Your task to perform on an android device: Show me productivity apps on the Play Store Image 0: 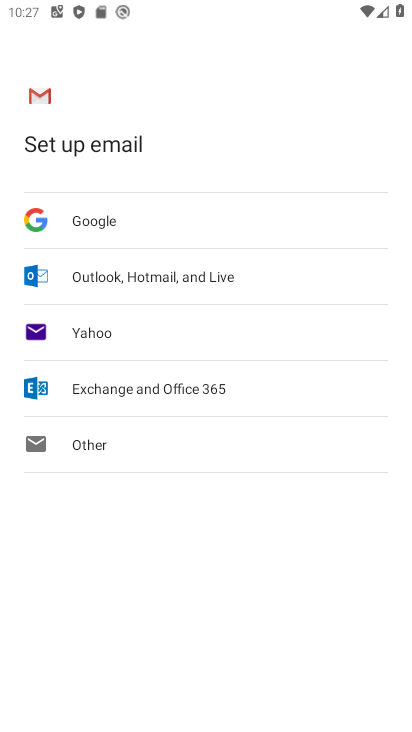
Step 0: press home button
Your task to perform on an android device: Show me productivity apps on the Play Store Image 1: 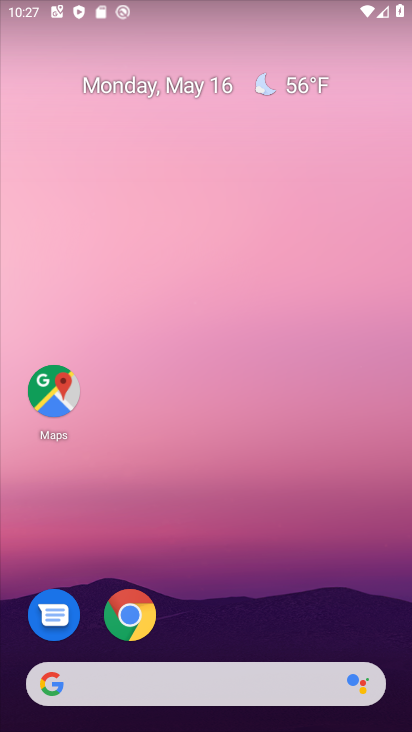
Step 1: drag from (251, 699) to (241, 235)
Your task to perform on an android device: Show me productivity apps on the Play Store Image 2: 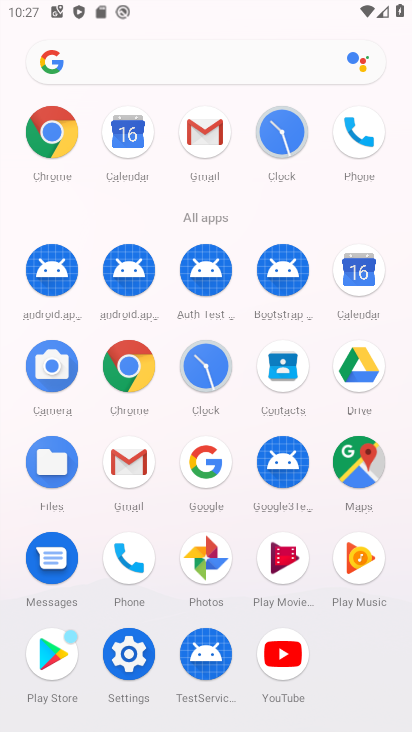
Step 2: click (59, 640)
Your task to perform on an android device: Show me productivity apps on the Play Store Image 3: 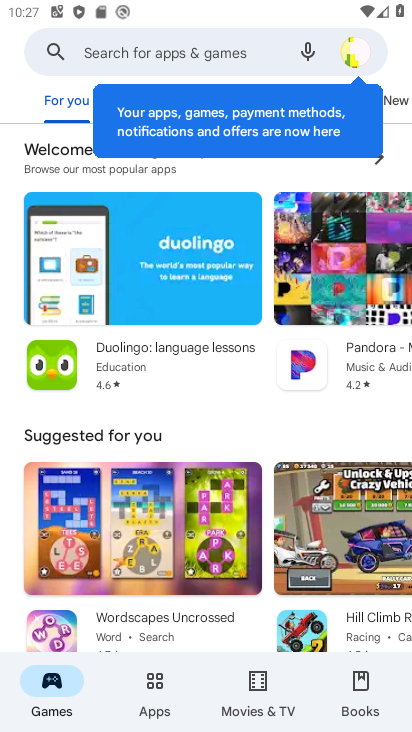
Step 3: click (167, 48)
Your task to perform on an android device: Show me productivity apps on the Play Store Image 4: 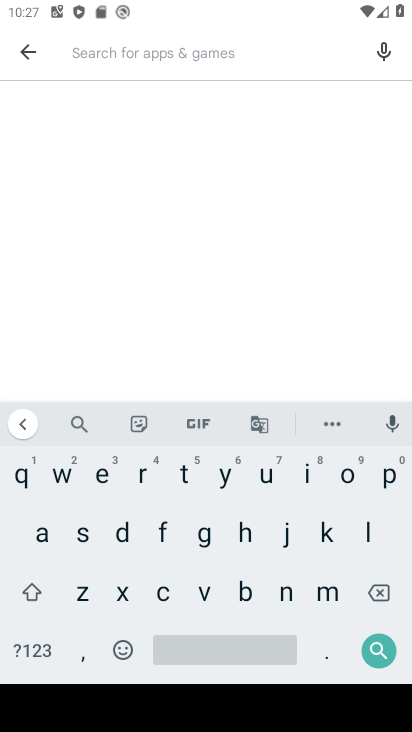
Step 4: click (385, 483)
Your task to perform on an android device: Show me productivity apps on the Play Store Image 5: 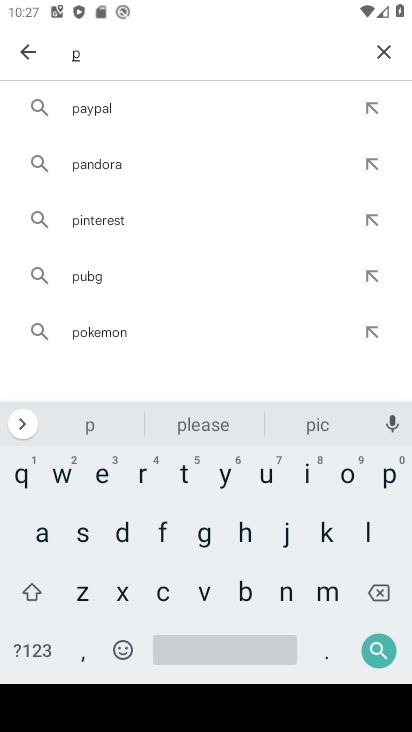
Step 5: click (143, 475)
Your task to perform on an android device: Show me productivity apps on the Play Store Image 6: 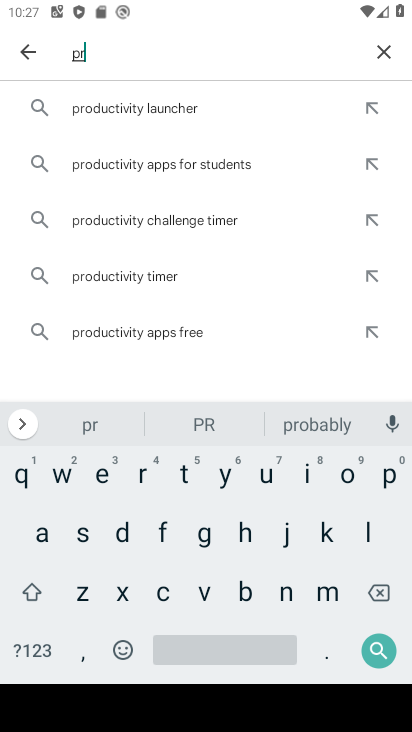
Step 6: click (139, 338)
Your task to perform on an android device: Show me productivity apps on the Play Store Image 7: 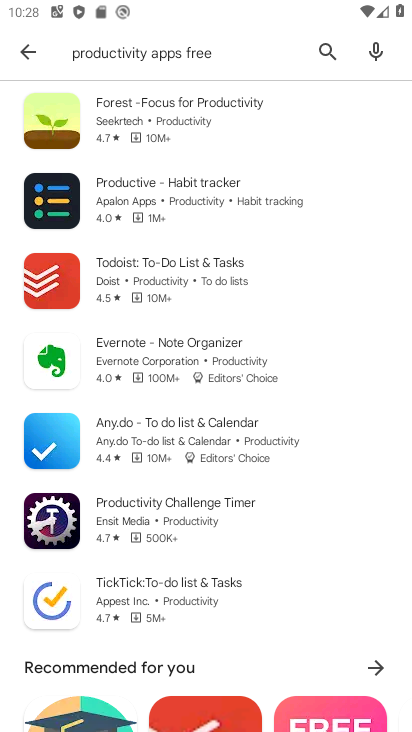
Step 7: task complete